Your task to perform on an android device: open device folders in google photos Image 0: 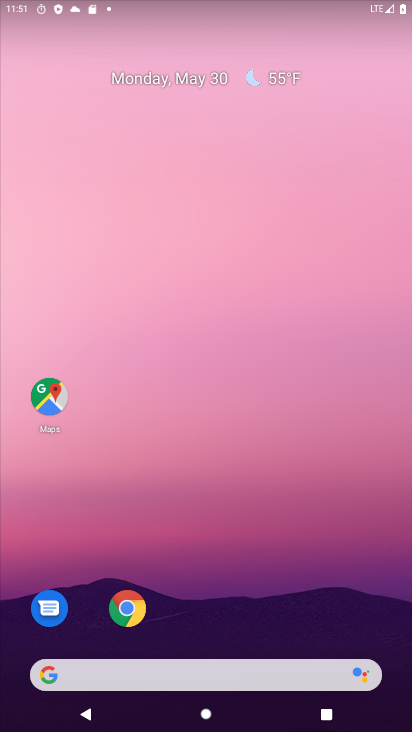
Step 0: drag from (263, 633) to (251, 51)
Your task to perform on an android device: open device folders in google photos Image 1: 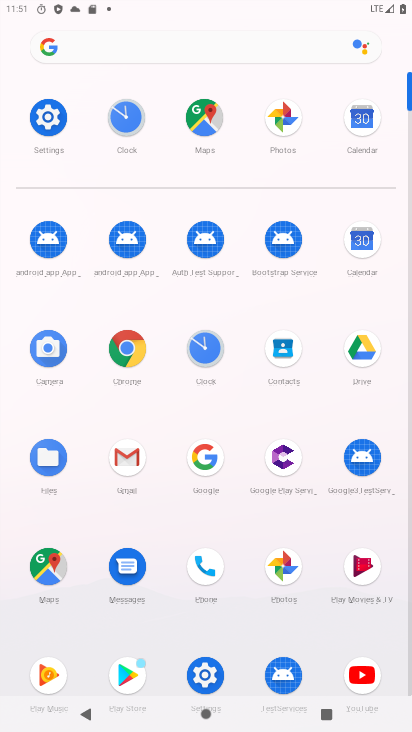
Step 1: click (284, 572)
Your task to perform on an android device: open device folders in google photos Image 2: 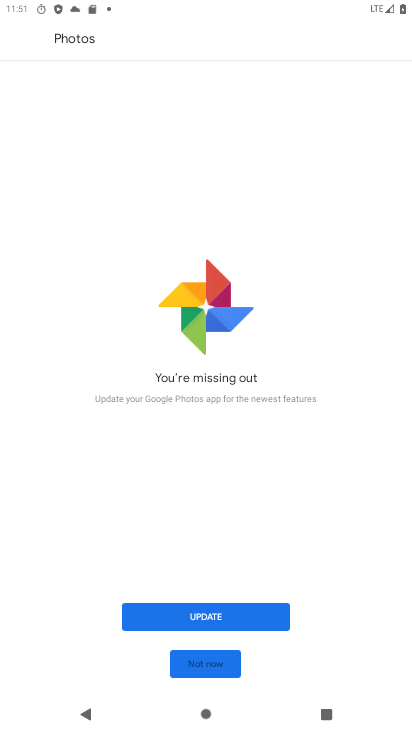
Step 2: click (212, 668)
Your task to perform on an android device: open device folders in google photos Image 3: 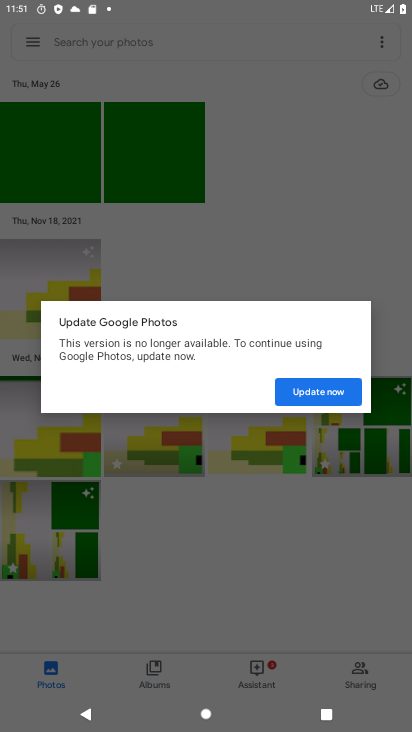
Step 3: click (298, 394)
Your task to perform on an android device: open device folders in google photos Image 4: 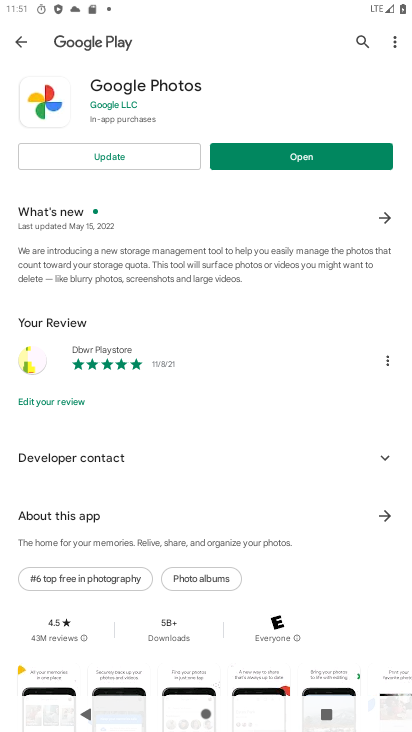
Step 4: click (280, 162)
Your task to perform on an android device: open device folders in google photos Image 5: 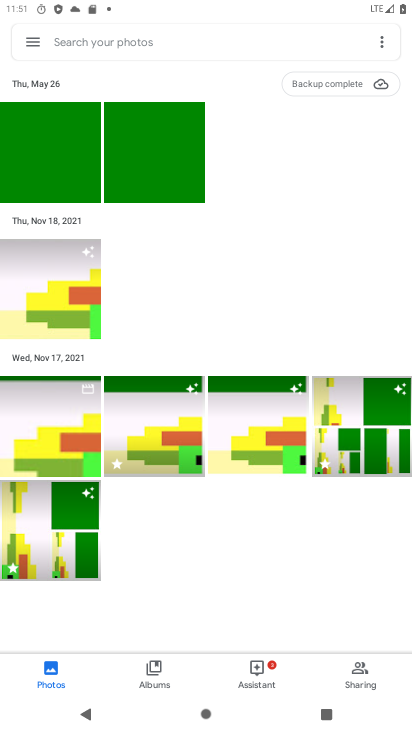
Step 5: click (35, 46)
Your task to perform on an android device: open device folders in google photos Image 6: 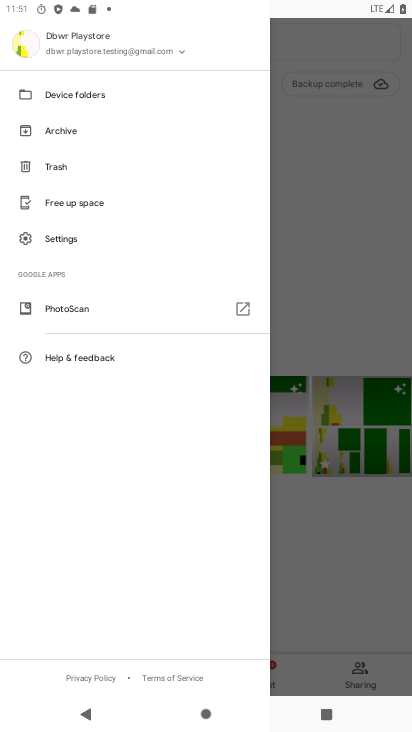
Step 6: click (51, 97)
Your task to perform on an android device: open device folders in google photos Image 7: 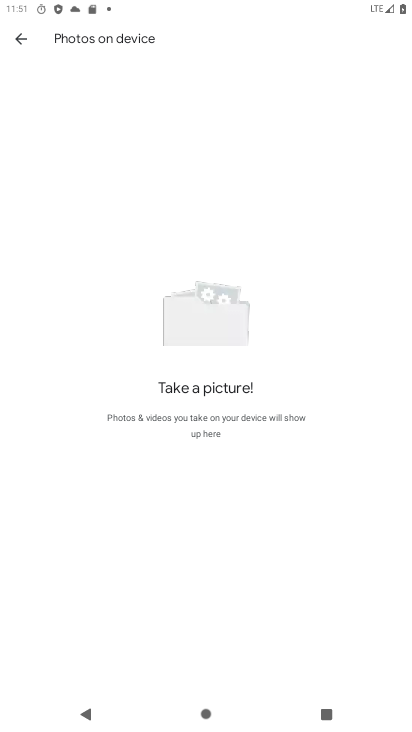
Step 7: task complete